Your task to perform on an android device: refresh tabs in the chrome app Image 0: 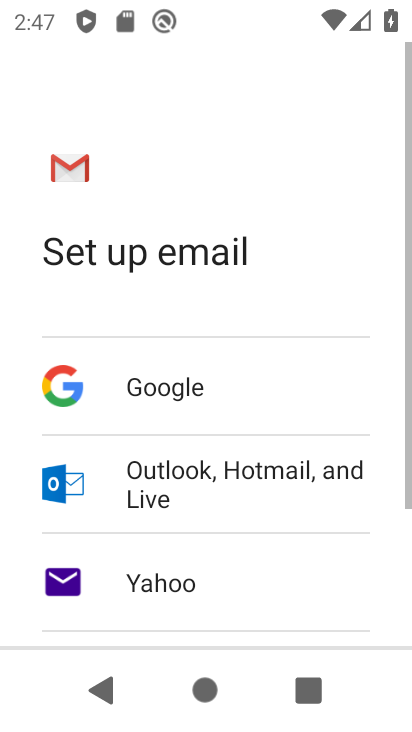
Step 0: press home button
Your task to perform on an android device: refresh tabs in the chrome app Image 1: 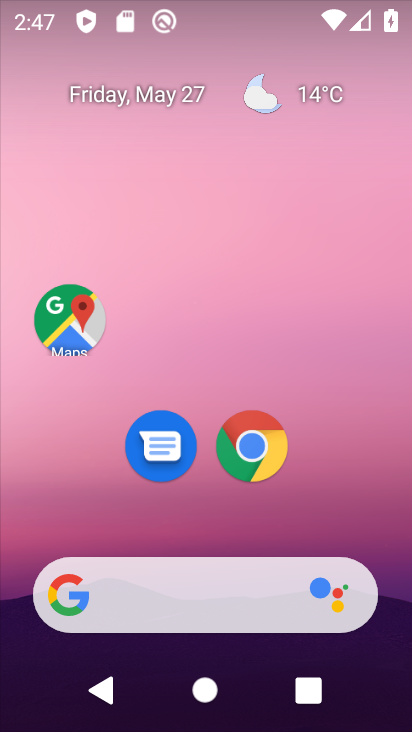
Step 1: click (253, 448)
Your task to perform on an android device: refresh tabs in the chrome app Image 2: 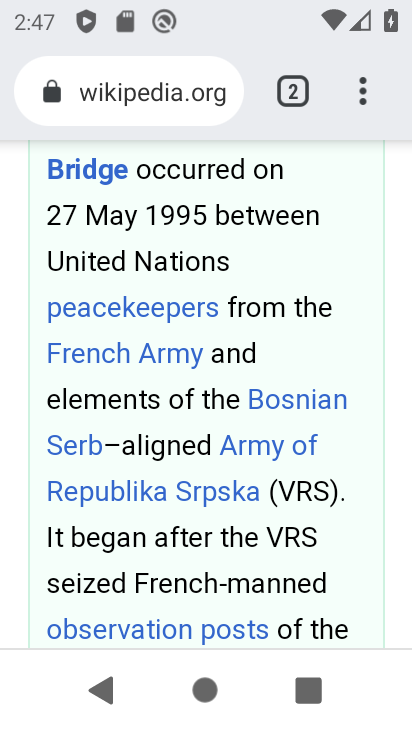
Step 2: click (362, 114)
Your task to perform on an android device: refresh tabs in the chrome app Image 3: 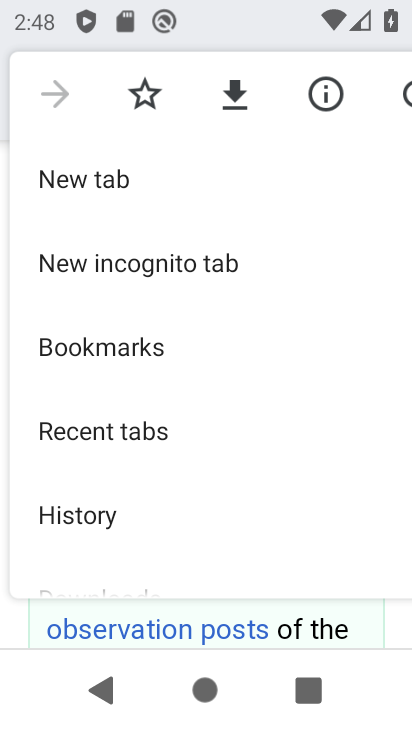
Step 3: click (404, 91)
Your task to perform on an android device: refresh tabs in the chrome app Image 4: 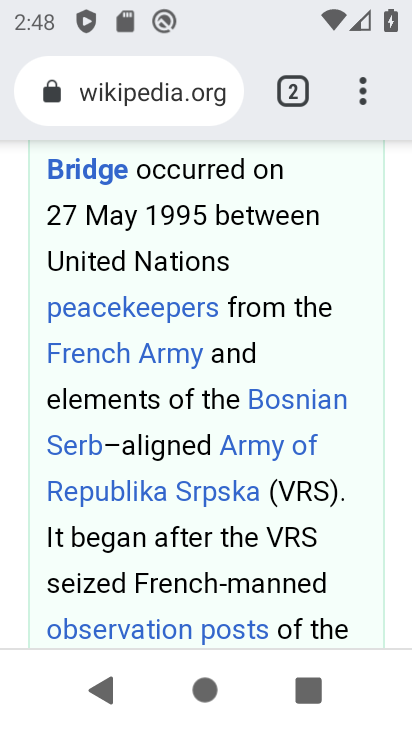
Step 4: task complete